Your task to perform on an android device: set the stopwatch Image 0: 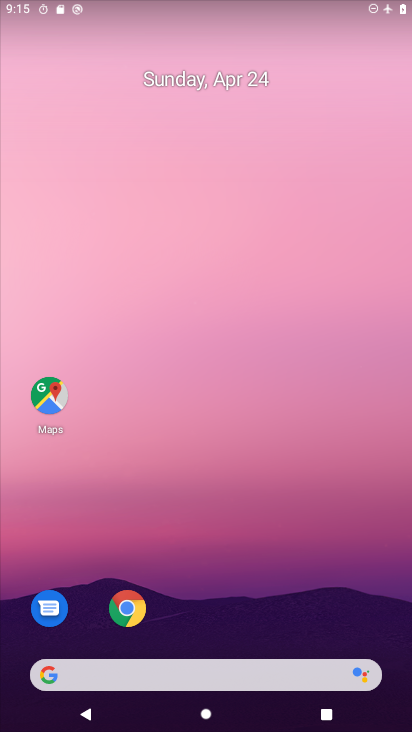
Step 0: drag from (300, 527) to (280, 112)
Your task to perform on an android device: set the stopwatch Image 1: 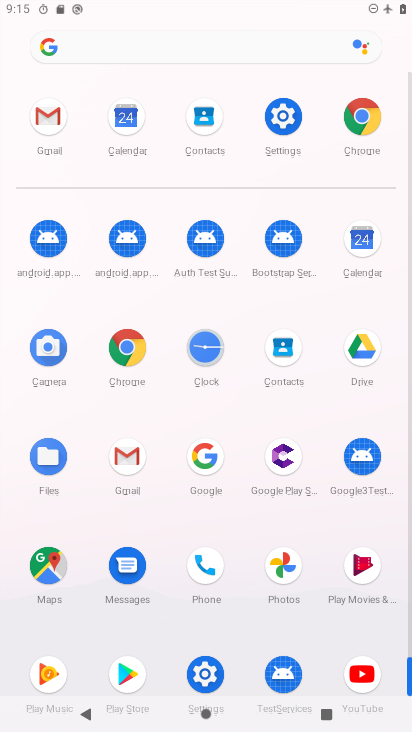
Step 1: click (207, 336)
Your task to perform on an android device: set the stopwatch Image 2: 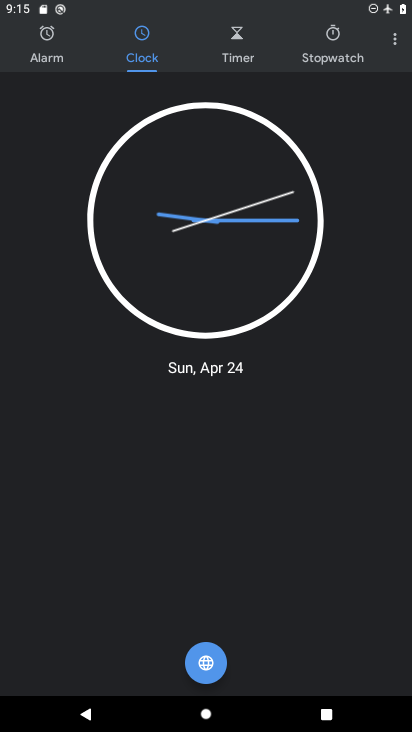
Step 2: click (329, 45)
Your task to perform on an android device: set the stopwatch Image 3: 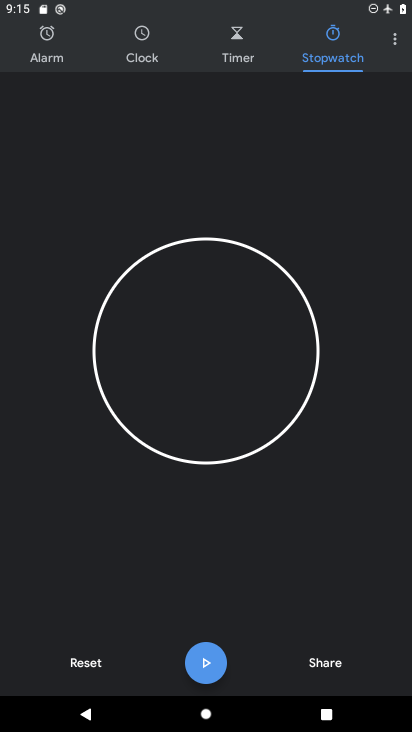
Step 3: task complete